Your task to perform on an android device: install app "Pinterest" Image 0: 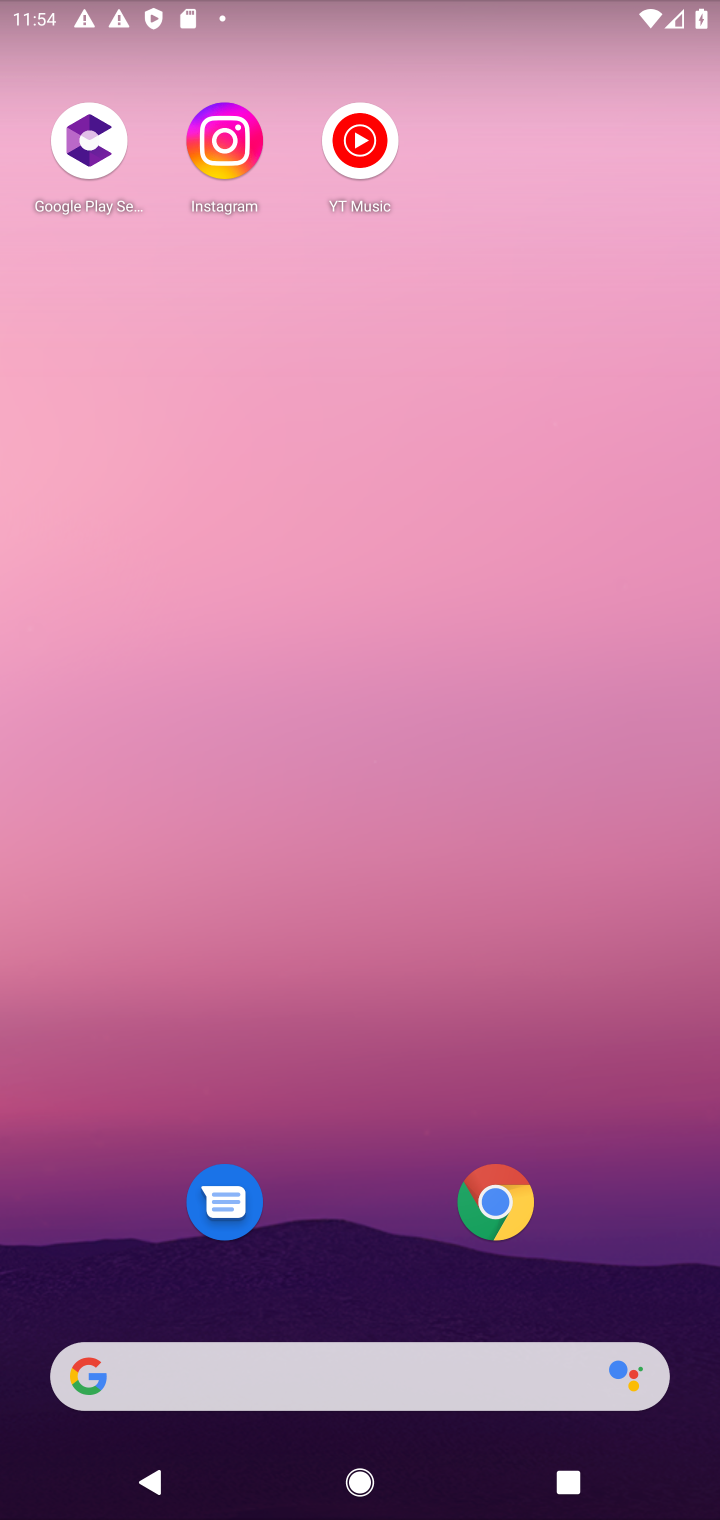
Step 0: drag from (297, 1439) to (334, 339)
Your task to perform on an android device: install app "Pinterest" Image 1: 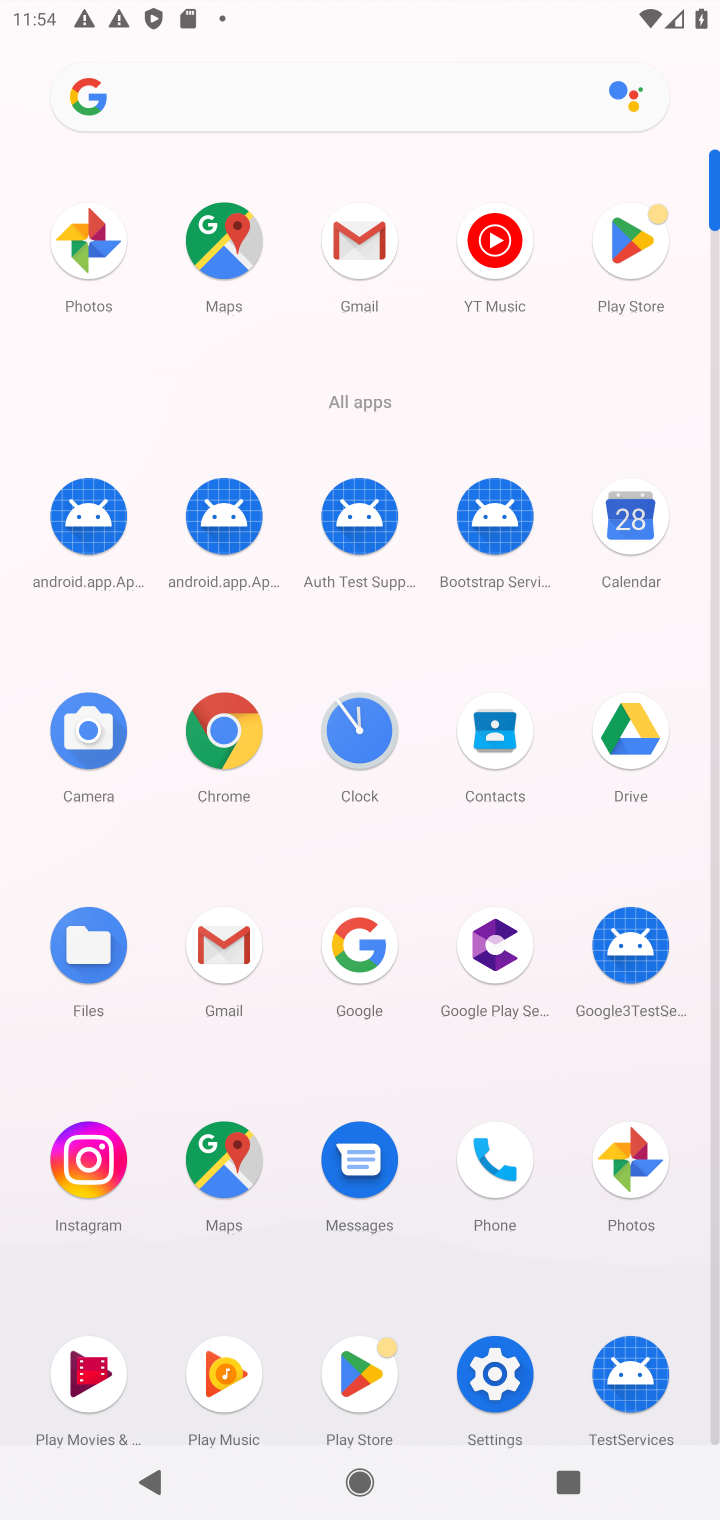
Step 1: click (612, 235)
Your task to perform on an android device: install app "Pinterest" Image 2: 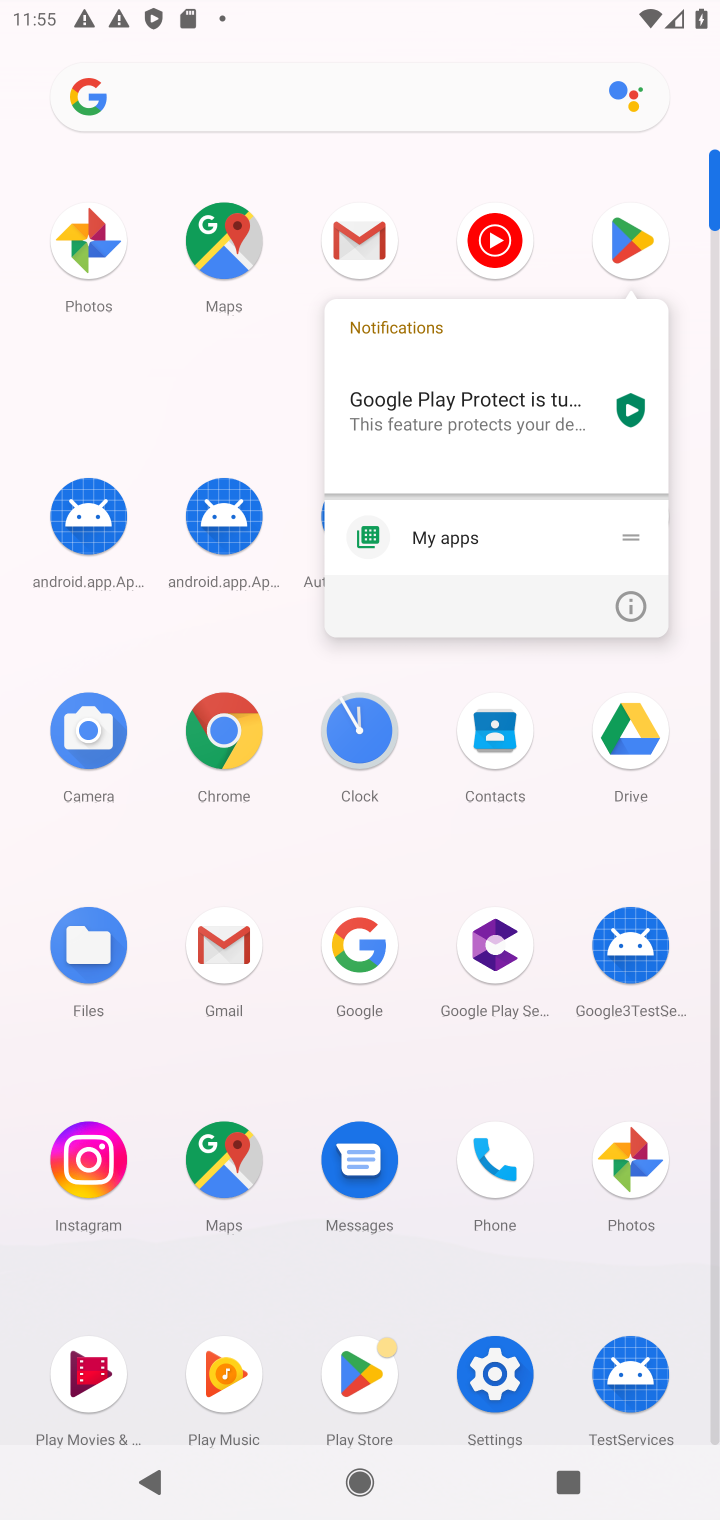
Step 2: click (612, 235)
Your task to perform on an android device: install app "Pinterest" Image 3: 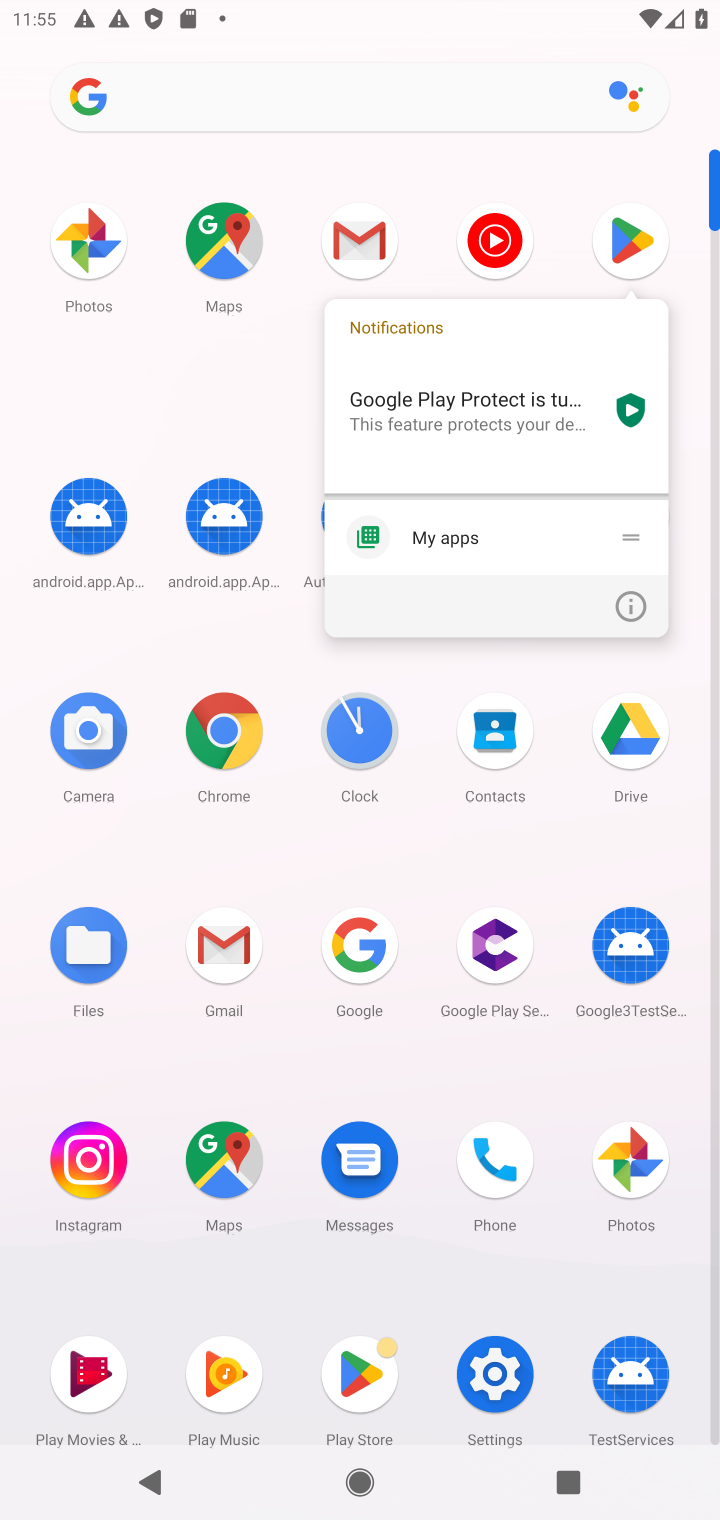
Step 3: click (612, 235)
Your task to perform on an android device: install app "Pinterest" Image 4: 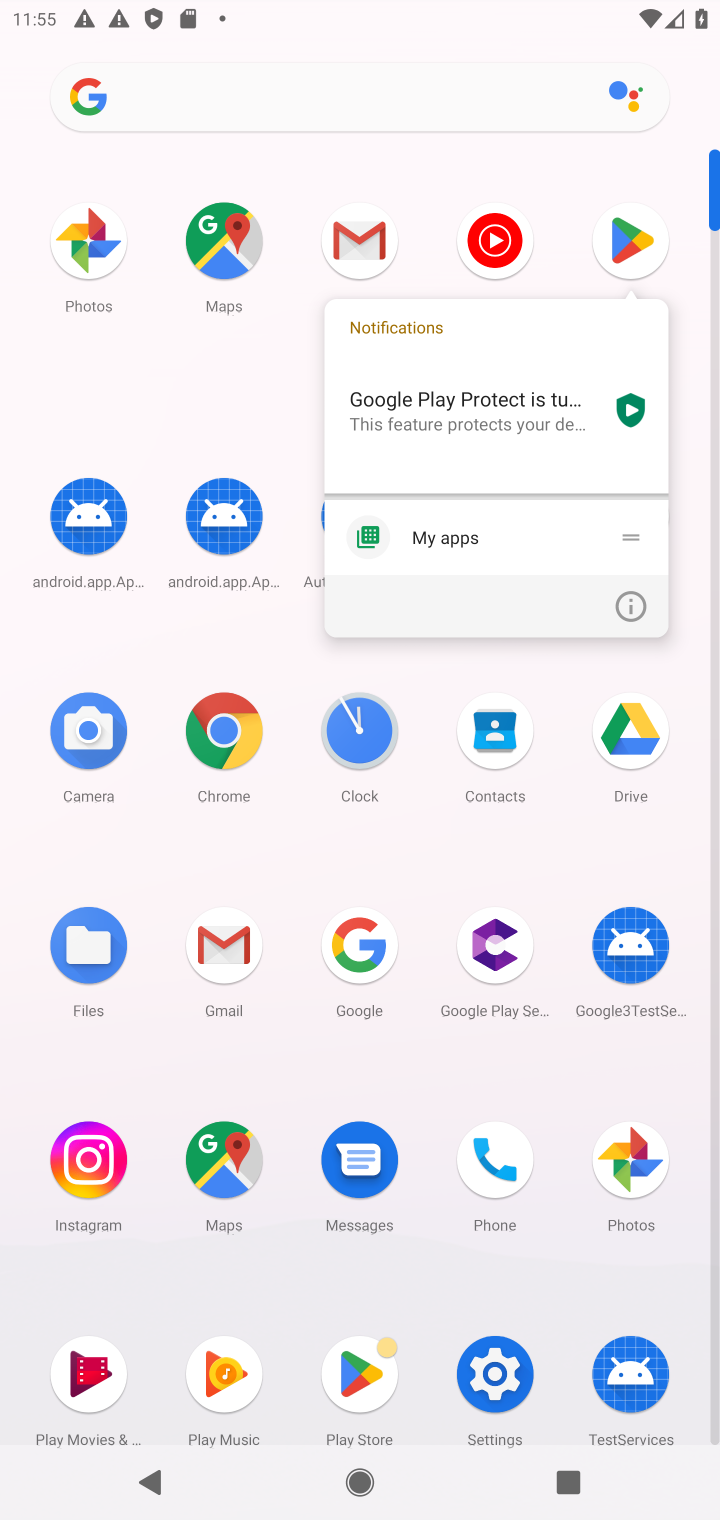
Step 4: click (640, 244)
Your task to perform on an android device: install app "Pinterest" Image 5: 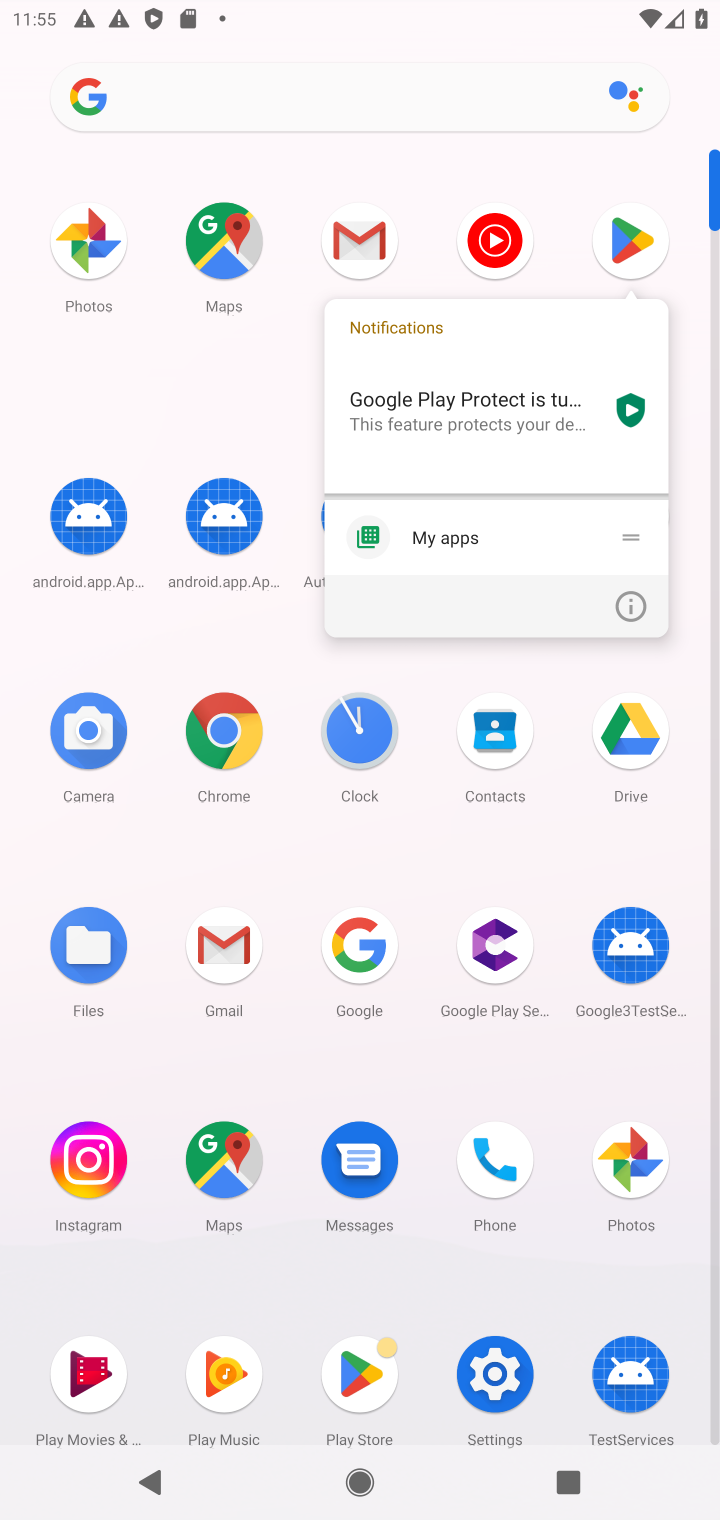
Step 5: click (640, 244)
Your task to perform on an android device: install app "Pinterest" Image 6: 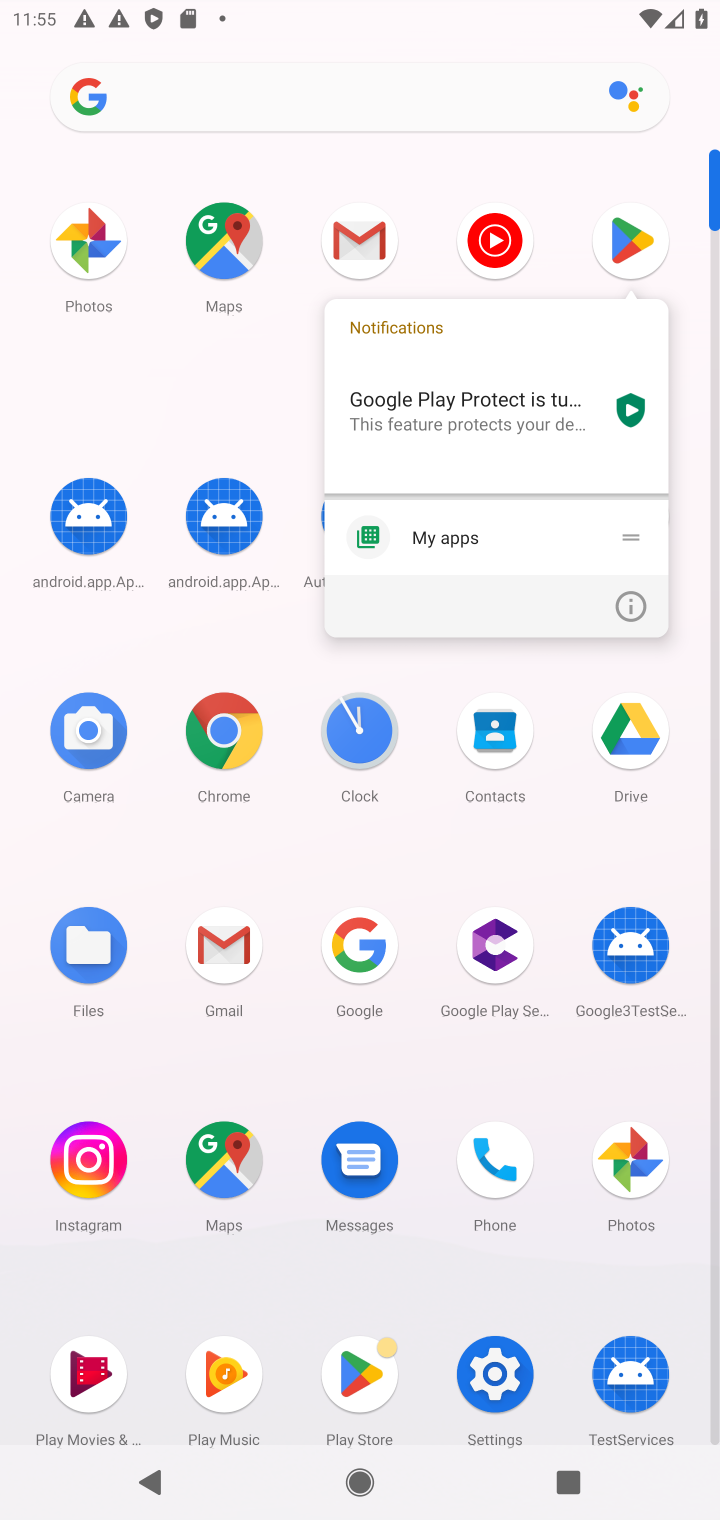
Step 6: click (615, 215)
Your task to perform on an android device: install app "Pinterest" Image 7: 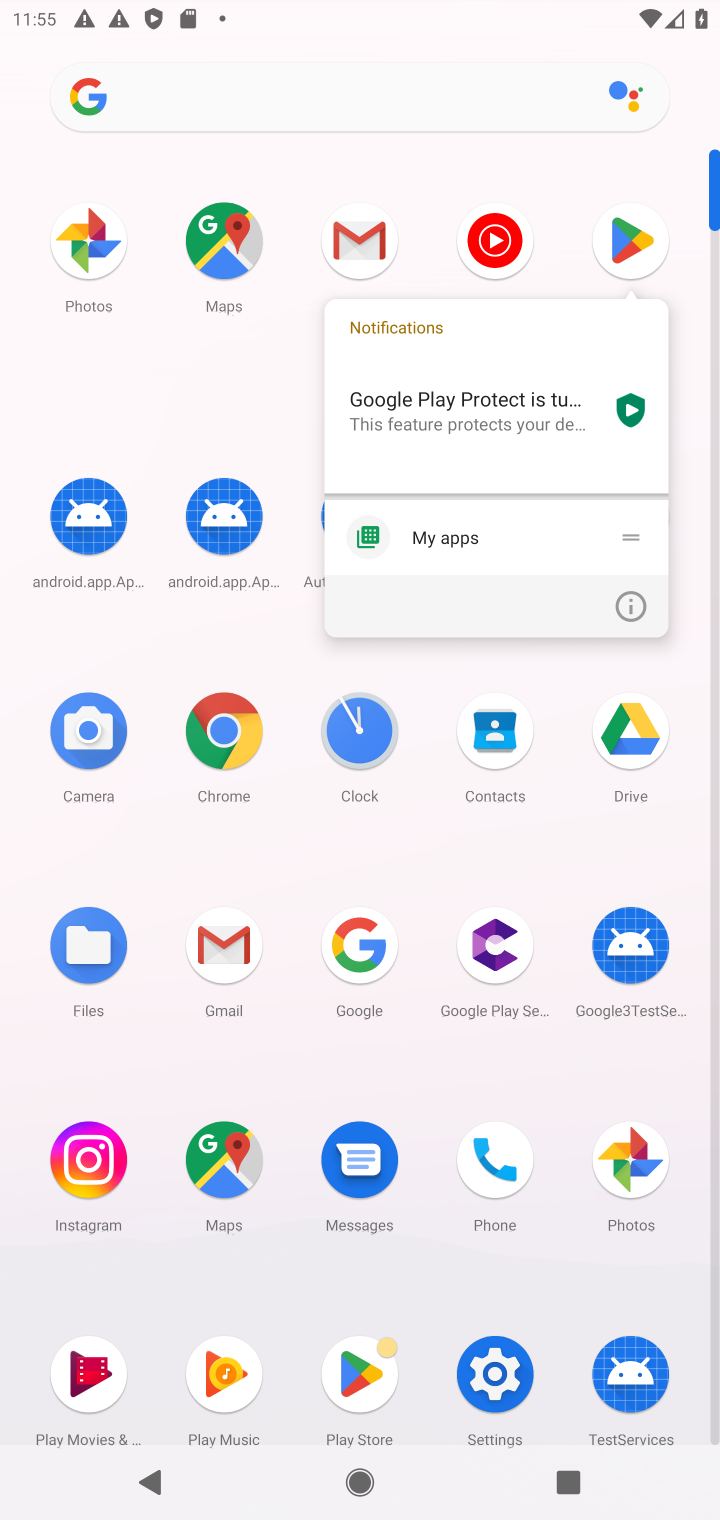
Step 7: click (359, 1375)
Your task to perform on an android device: install app "Pinterest" Image 8: 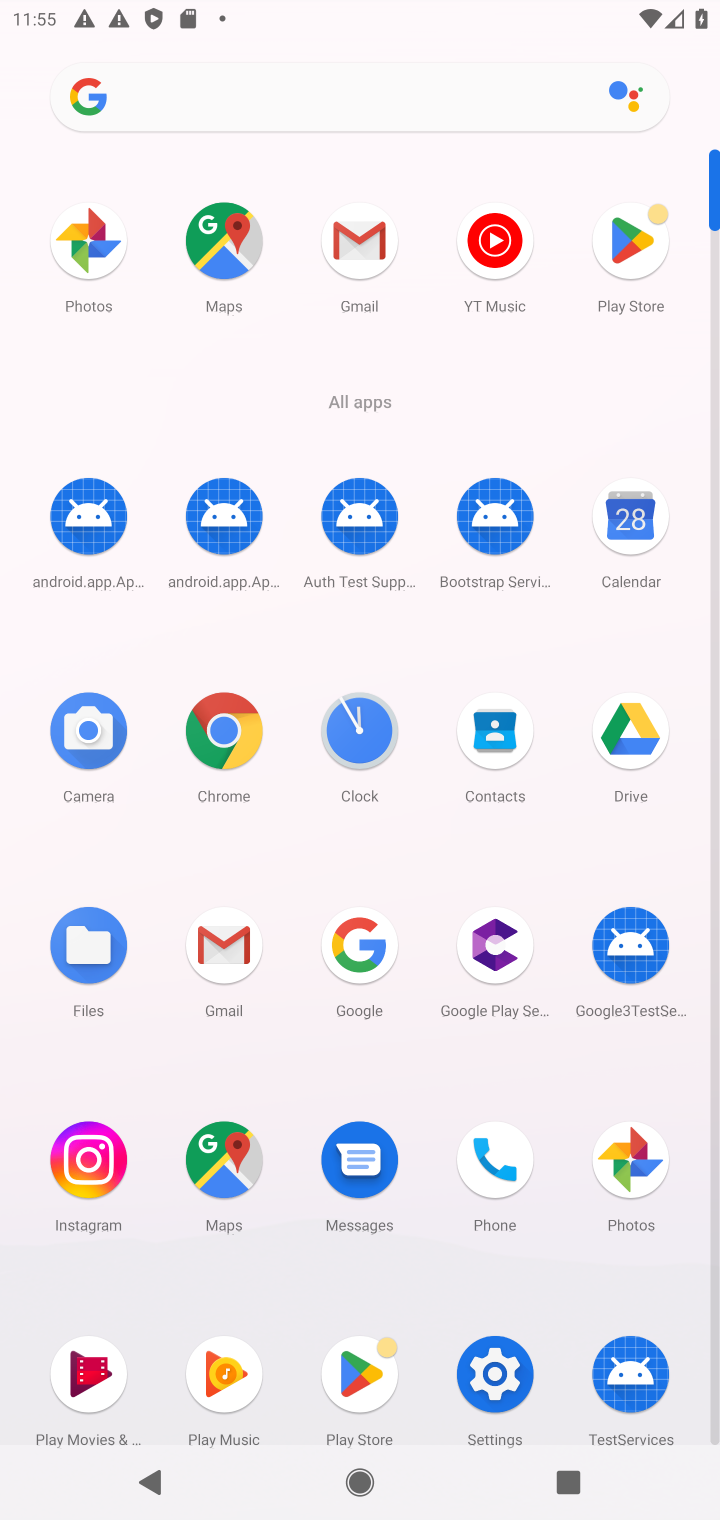
Step 8: click (359, 1370)
Your task to perform on an android device: install app "Pinterest" Image 9: 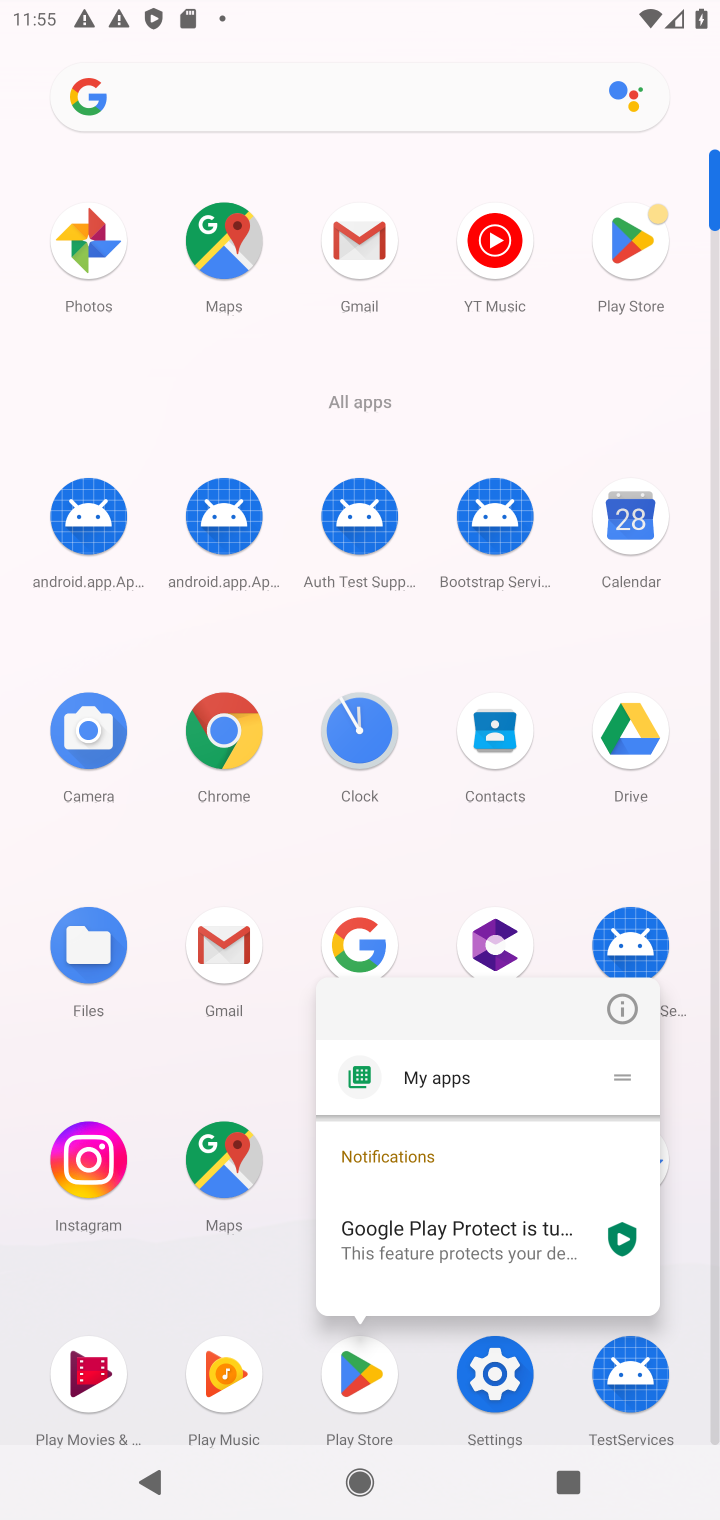
Step 9: click (359, 1370)
Your task to perform on an android device: install app "Pinterest" Image 10: 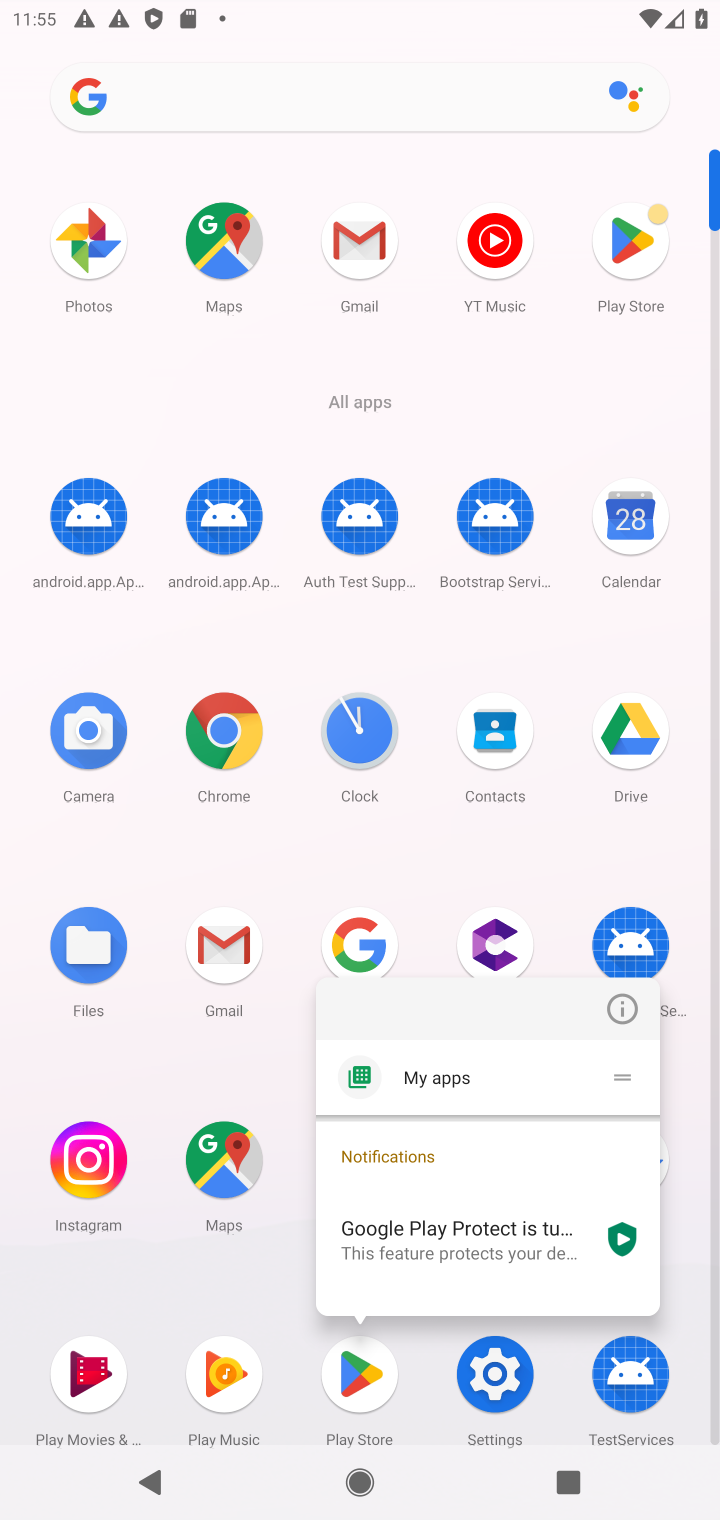
Step 10: click (346, 1380)
Your task to perform on an android device: install app "Pinterest" Image 11: 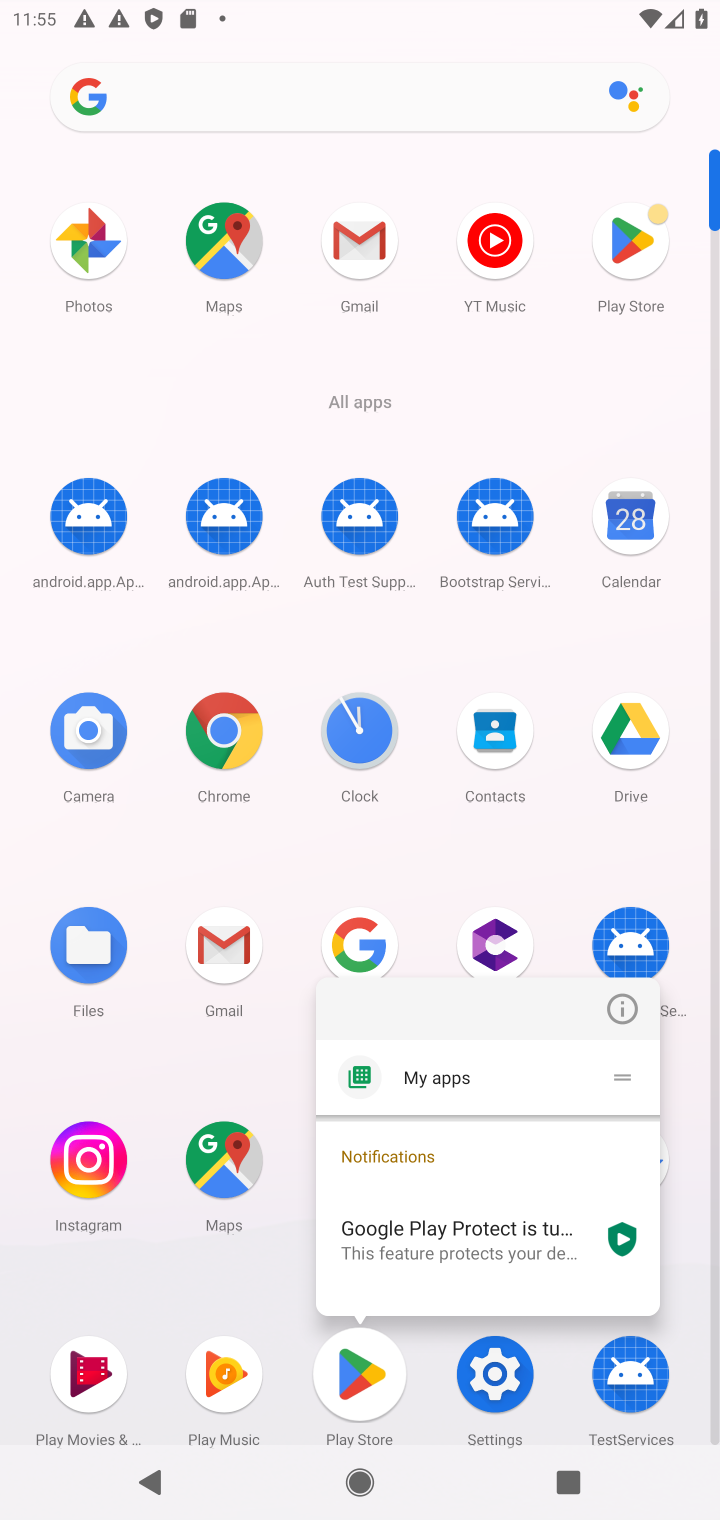
Step 11: click (346, 1380)
Your task to perform on an android device: install app "Pinterest" Image 12: 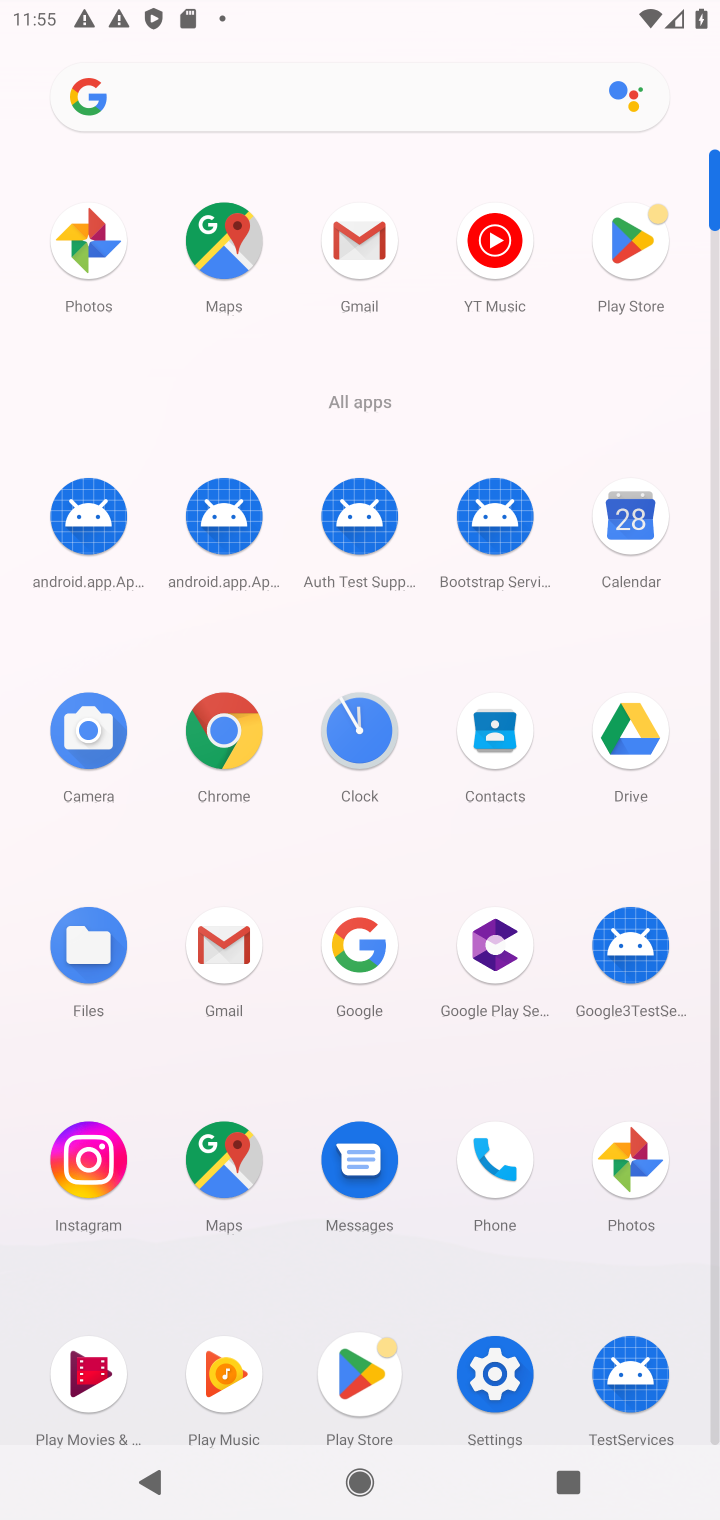
Step 12: click (346, 1380)
Your task to perform on an android device: install app "Pinterest" Image 13: 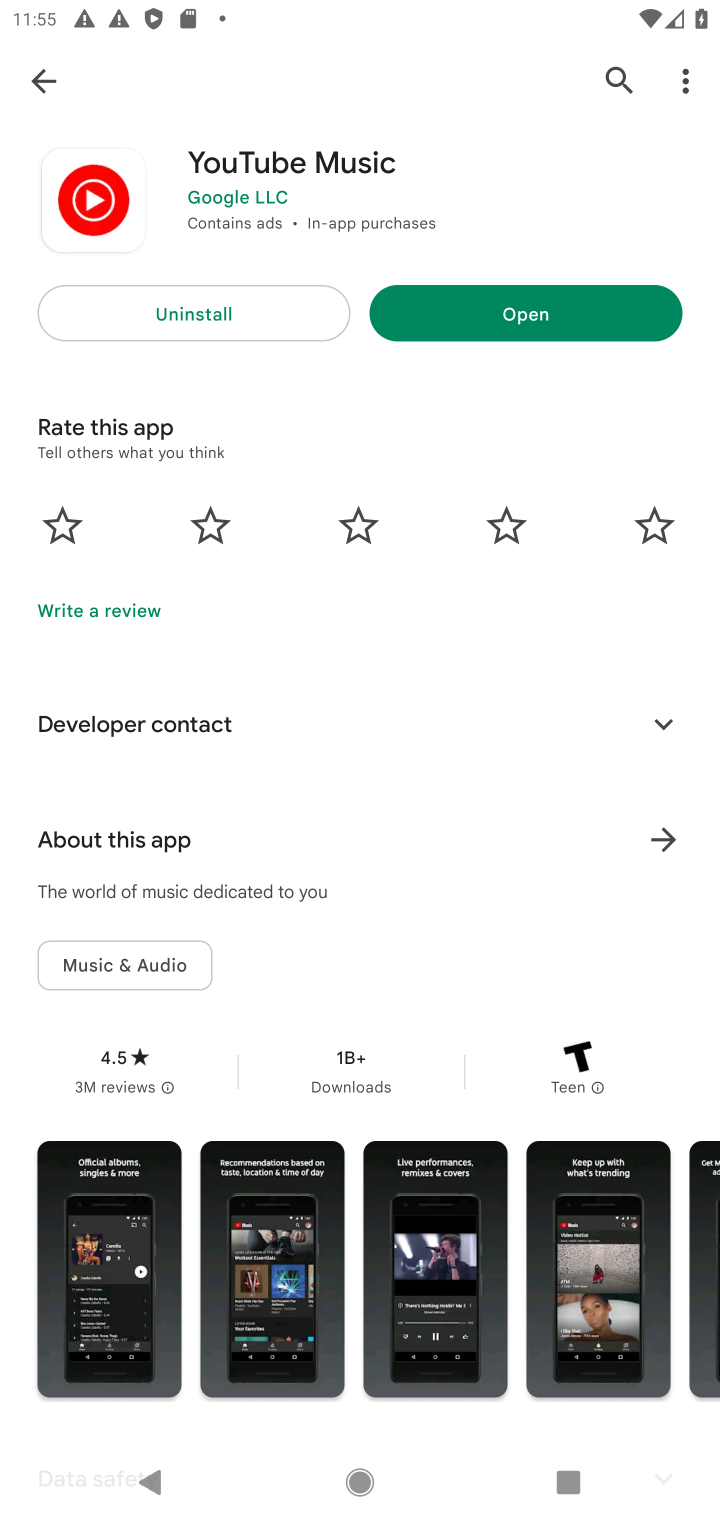
Step 13: click (623, 82)
Your task to perform on an android device: install app "Pinterest" Image 14: 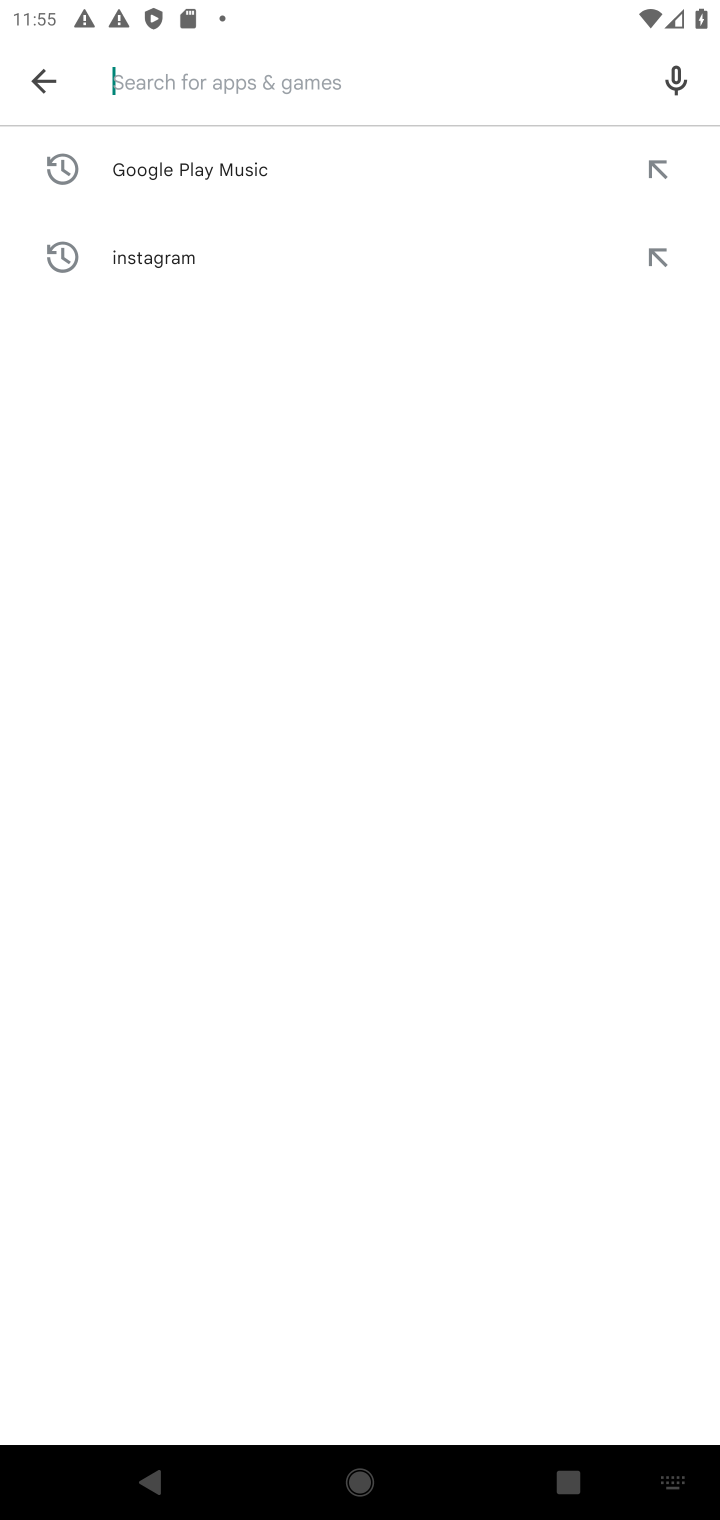
Step 14: type "Pinterest"
Your task to perform on an android device: install app "Pinterest" Image 15: 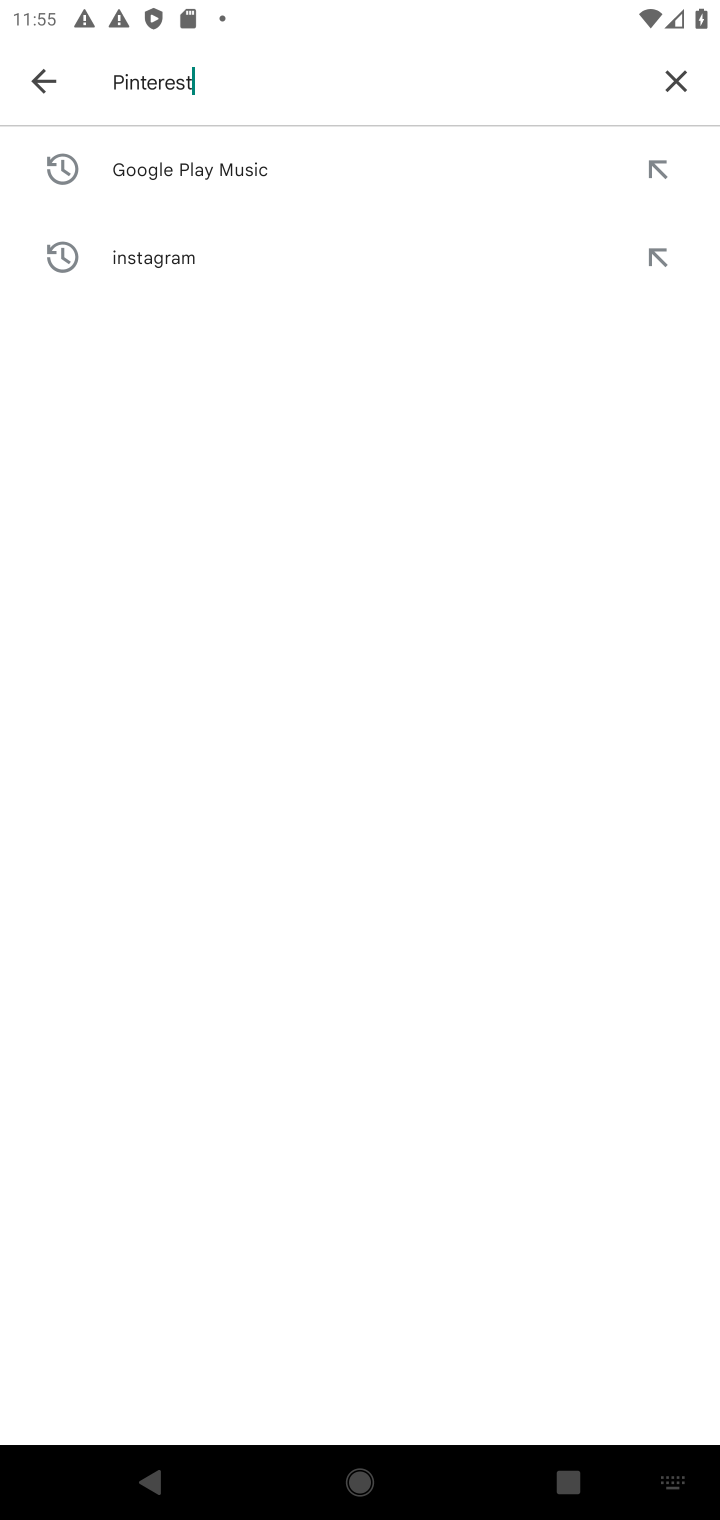
Step 15: type ""
Your task to perform on an android device: install app "Pinterest" Image 16: 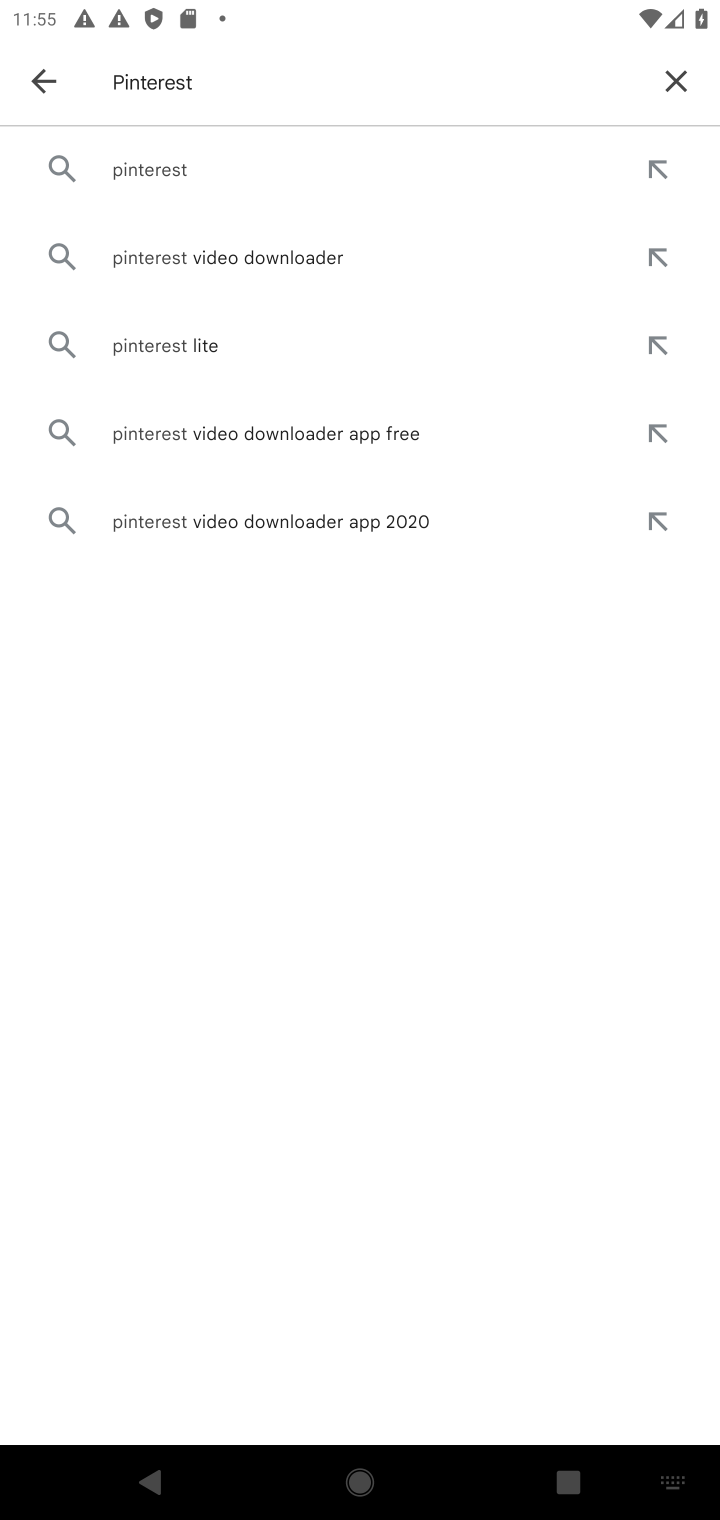
Step 16: click (117, 171)
Your task to perform on an android device: install app "Pinterest" Image 17: 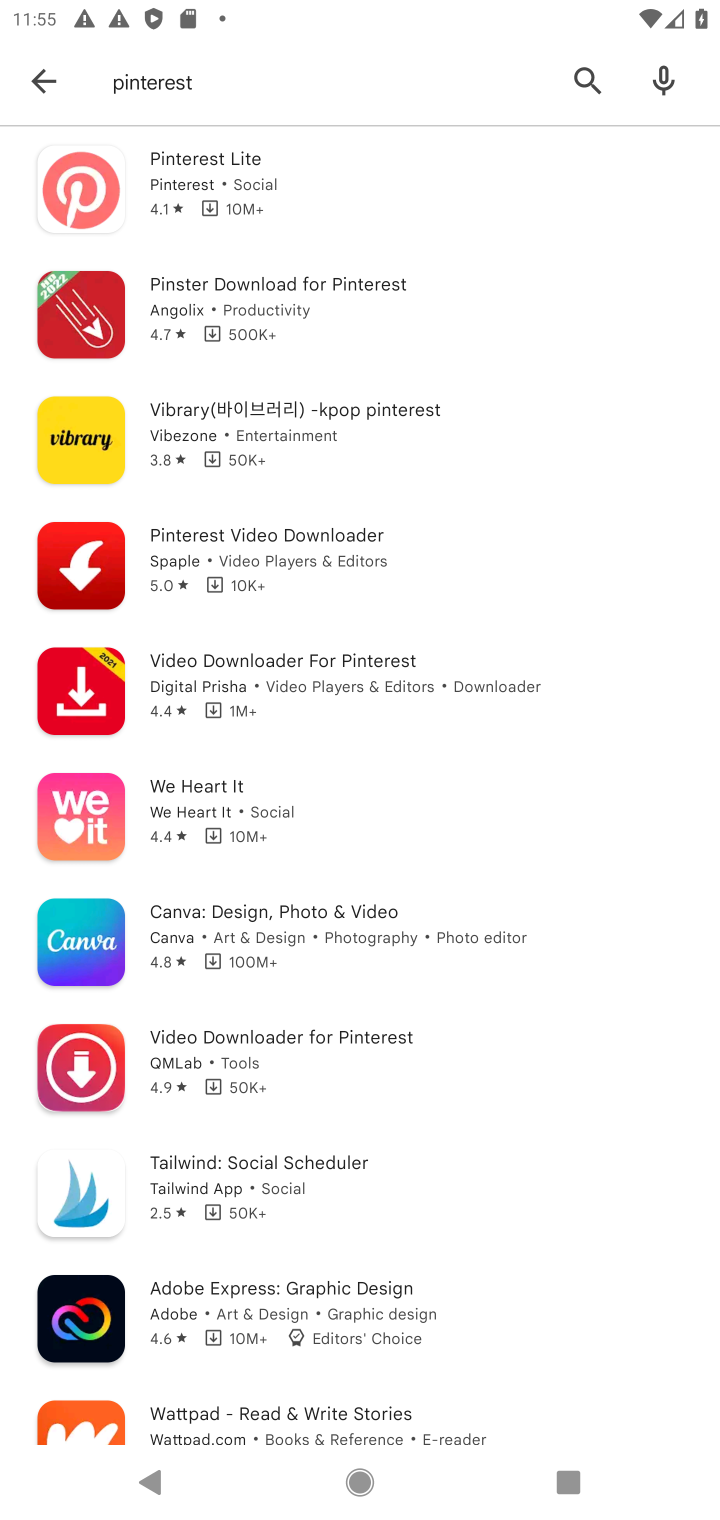
Step 17: task complete